Your task to perform on an android device: set the stopwatch Image 0: 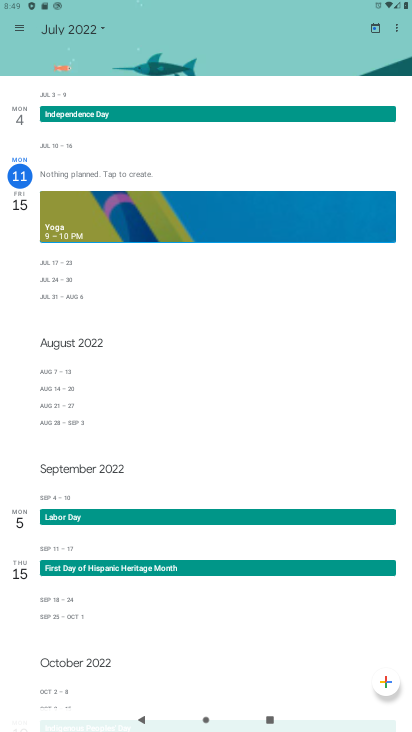
Step 0: press home button
Your task to perform on an android device: set the stopwatch Image 1: 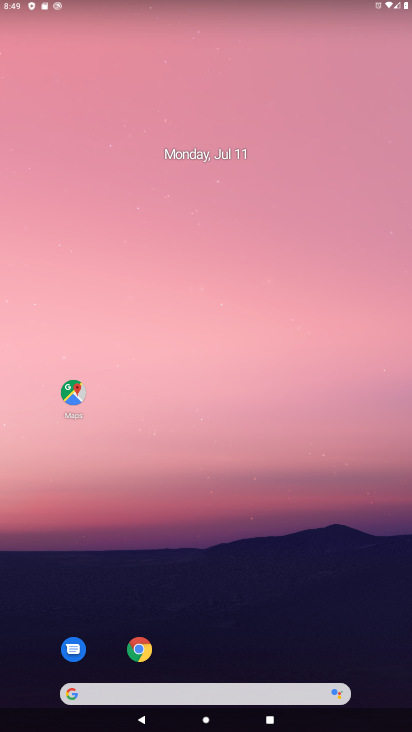
Step 1: drag from (208, 706) to (267, 6)
Your task to perform on an android device: set the stopwatch Image 2: 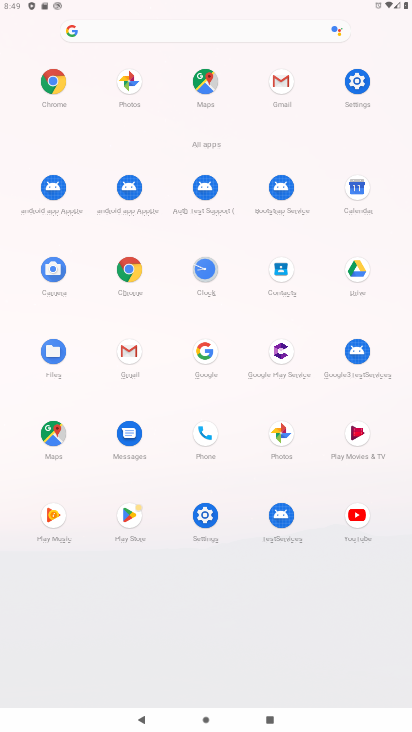
Step 2: click (206, 271)
Your task to perform on an android device: set the stopwatch Image 3: 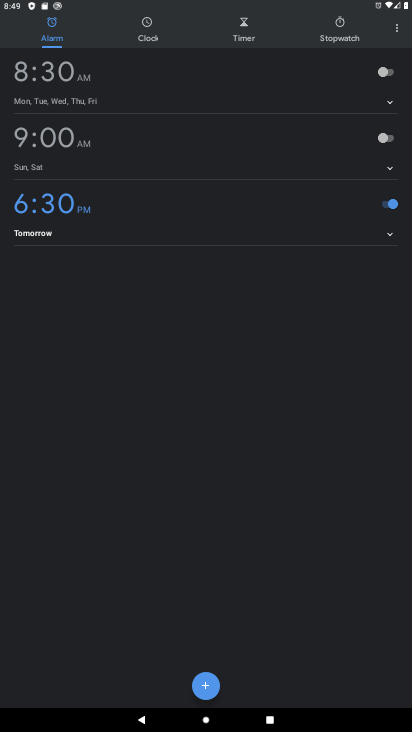
Step 3: click (341, 26)
Your task to perform on an android device: set the stopwatch Image 4: 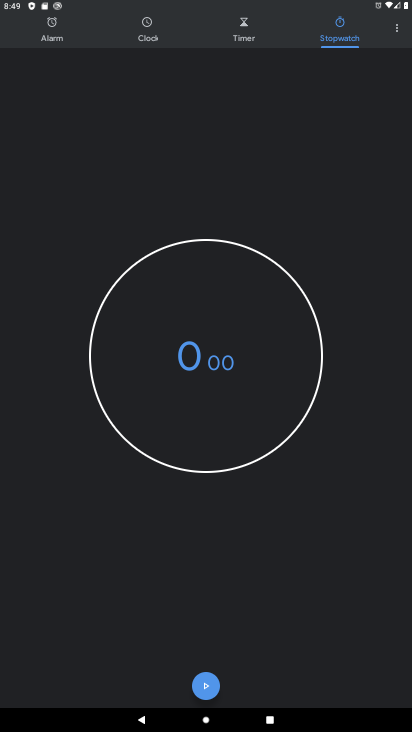
Step 4: click (232, 348)
Your task to perform on an android device: set the stopwatch Image 5: 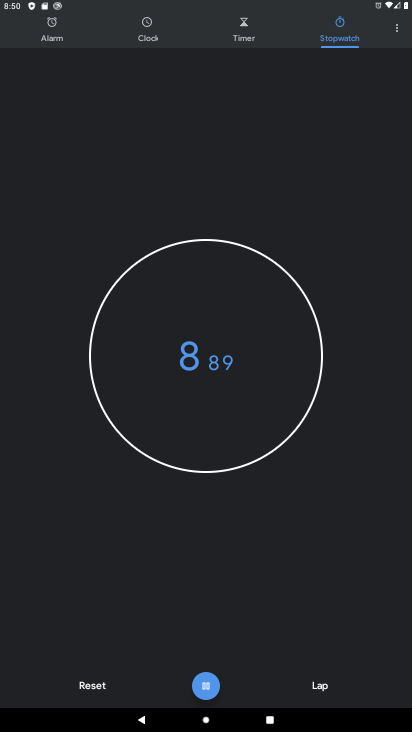
Step 5: click (232, 348)
Your task to perform on an android device: set the stopwatch Image 6: 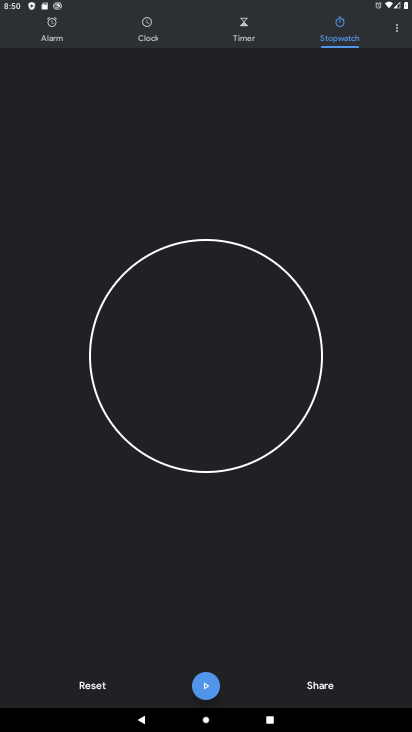
Step 6: task complete